Your task to perform on an android device: turn pop-ups on in chrome Image 0: 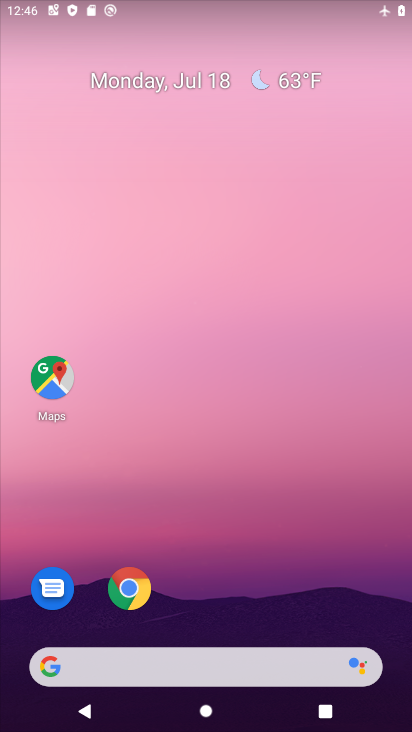
Step 0: click (131, 589)
Your task to perform on an android device: turn pop-ups on in chrome Image 1: 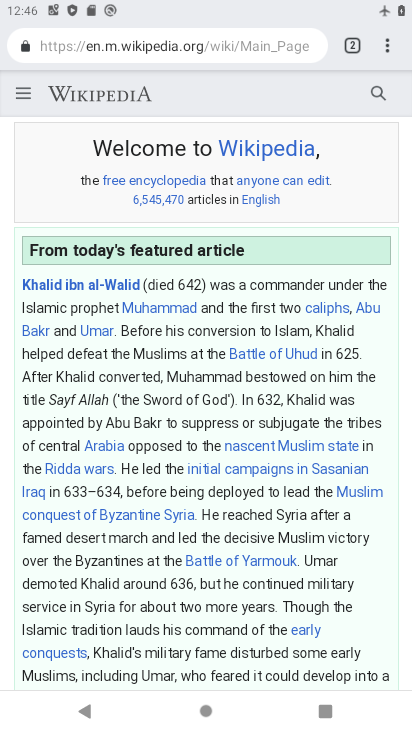
Step 1: click (386, 47)
Your task to perform on an android device: turn pop-ups on in chrome Image 2: 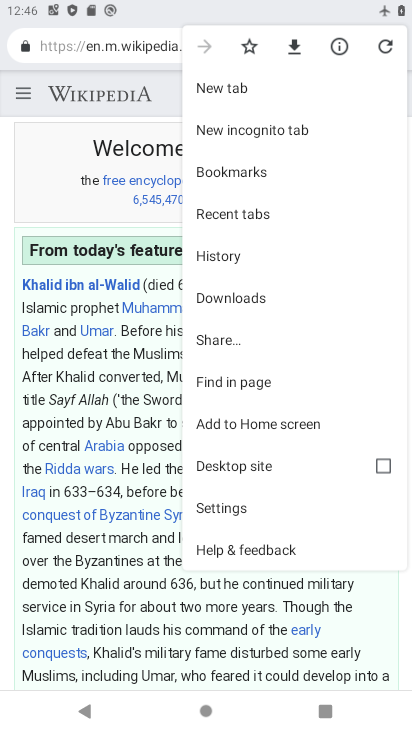
Step 2: click (219, 505)
Your task to perform on an android device: turn pop-ups on in chrome Image 3: 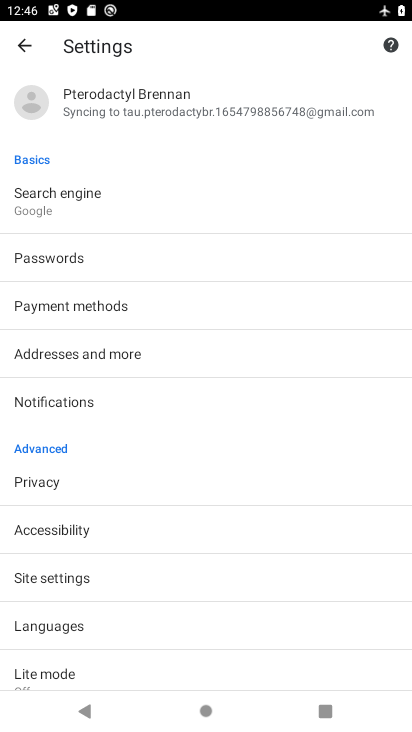
Step 3: click (55, 580)
Your task to perform on an android device: turn pop-ups on in chrome Image 4: 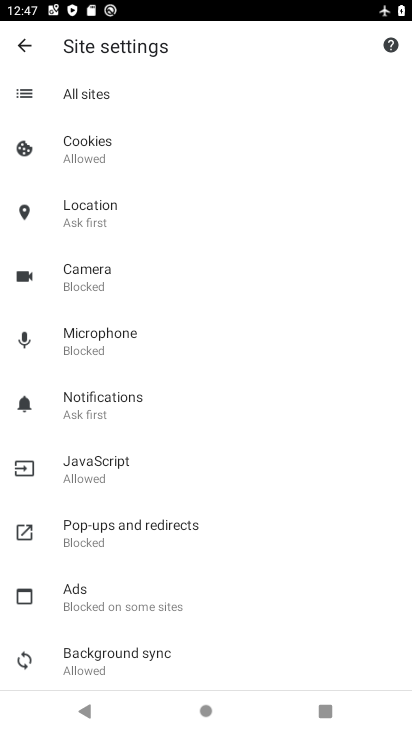
Step 4: click (91, 537)
Your task to perform on an android device: turn pop-ups on in chrome Image 5: 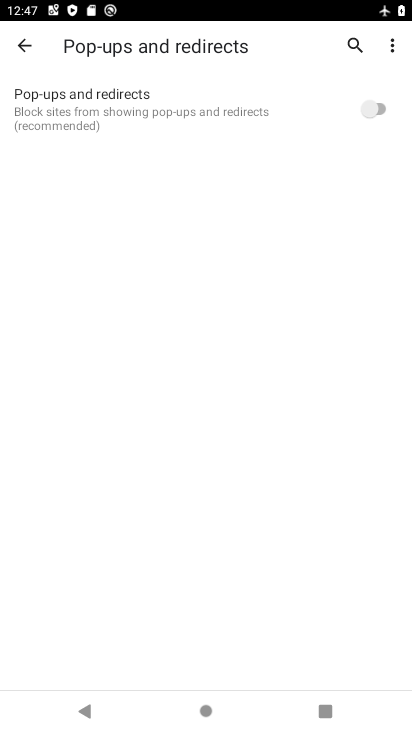
Step 5: click (379, 108)
Your task to perform on an android device: turn pop-ups on in chrome Image 6: 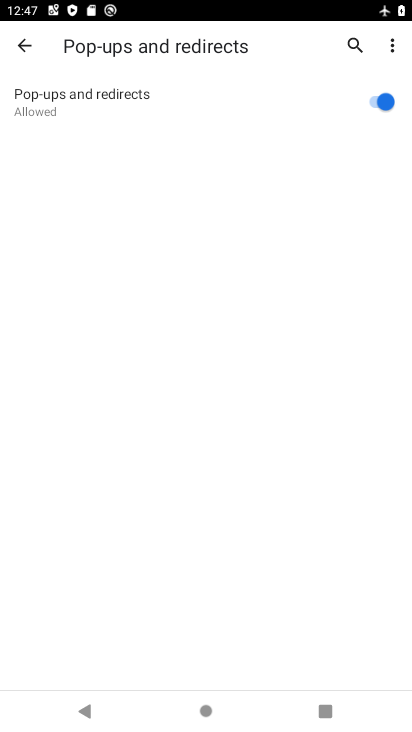
Step 6: task complete